Your task to perform on an android device: Open Youtube and go to "Your channel" Image 0: 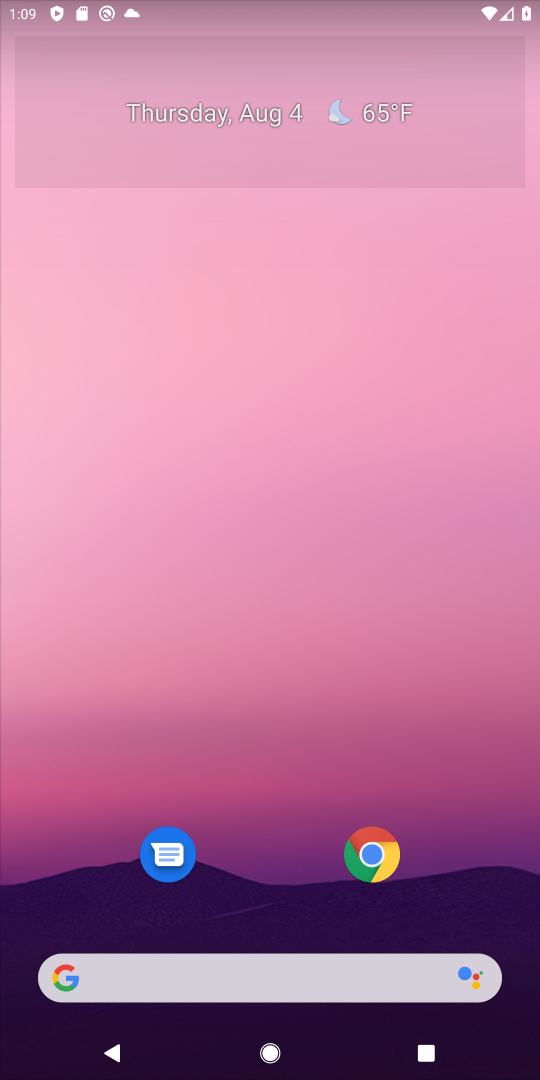
Step 0: drag from (223, 716) to (334, 202)
Your task to perform on an android device: Open Youtube and go to "Your channel" Image 1: 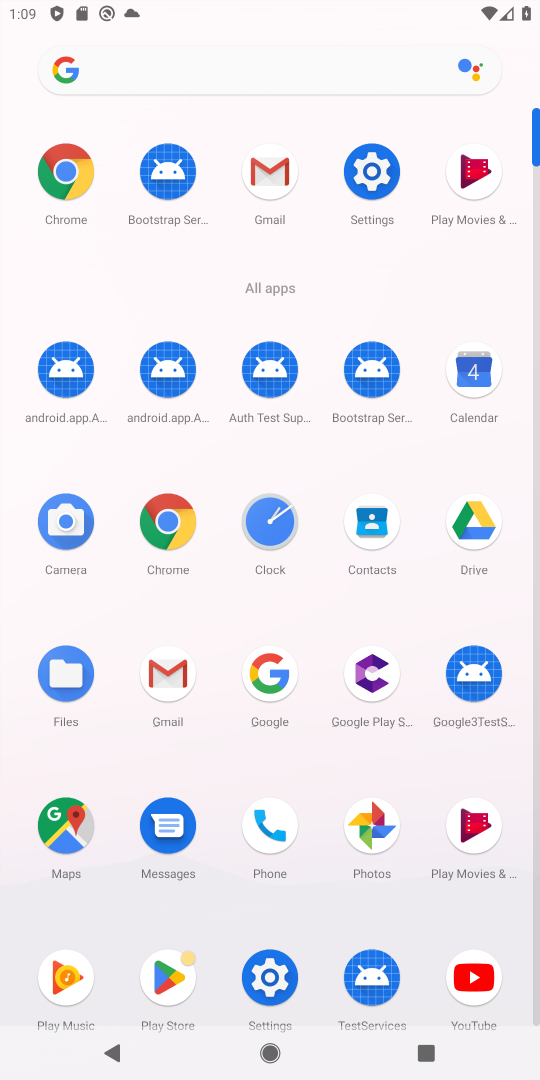
Step 1: click (457, 977)
Your task to perform on an android device: Open Youtube and go to "Your channel" Image 2: 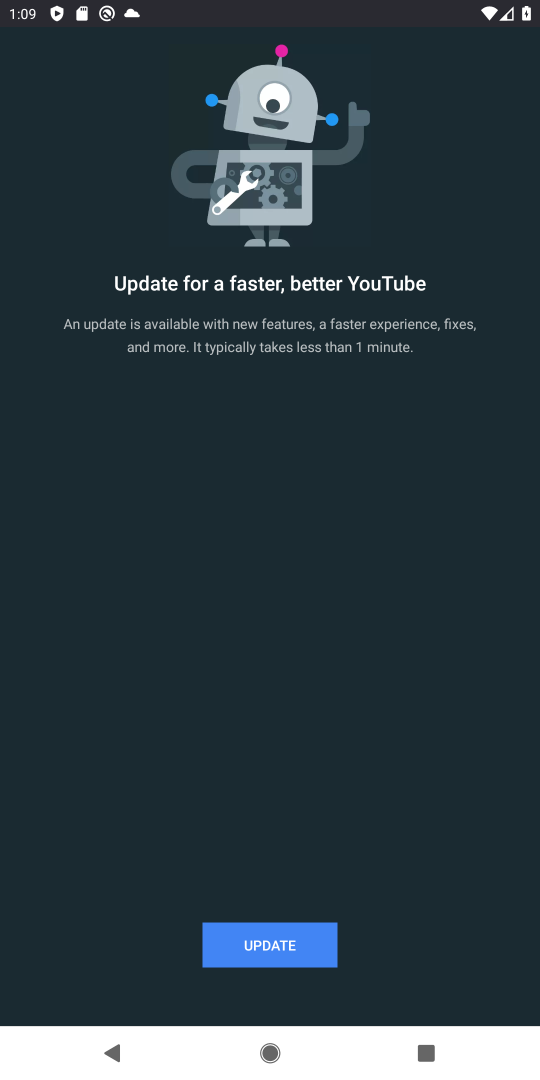
Step 2: task complete